Your task to perform on an android device: Open Yahoo.com Image 0: 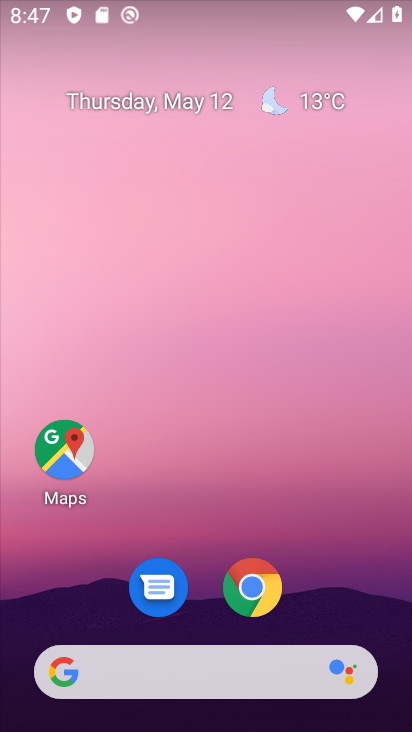
Step 0: drag from (342, 555) to (310, 2)
Your task to perform on an android device: Open Yahoo.com Image 1: 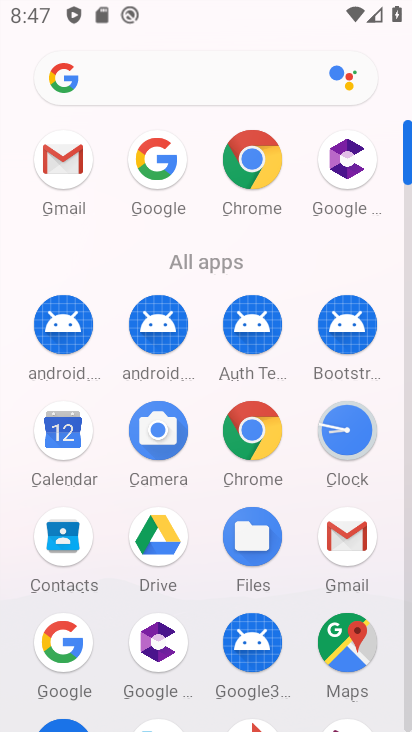
Step 1: click (264, 165)
Your task to perform on an android device: Open Yahoo.com Image 2: 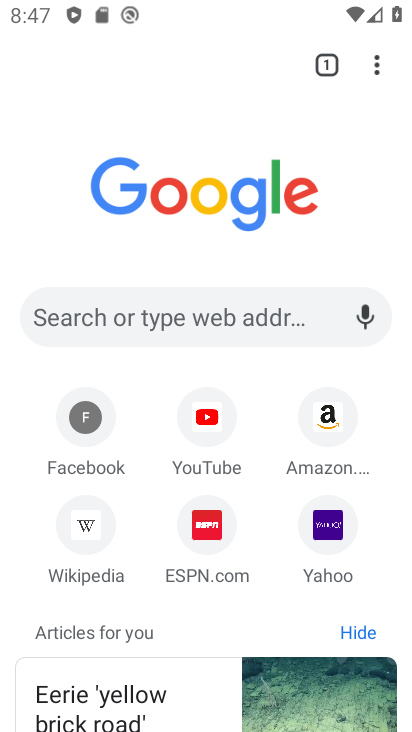
Step 2: click (338, 536)
Your task to perform on an android device: Open Yahoo.com Image 3: 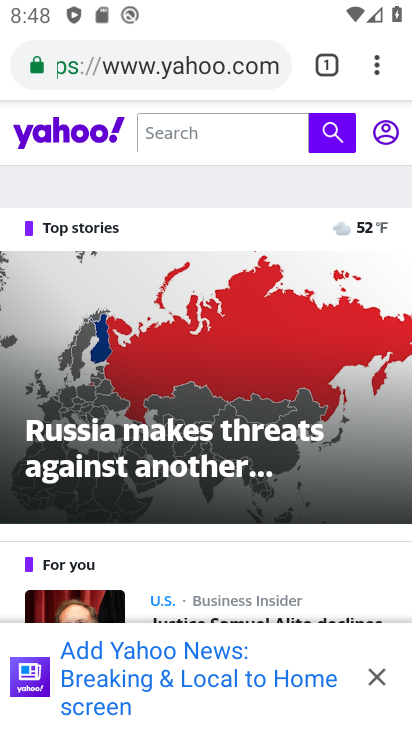
Step 3: task complete